Your task to perform on an android device: add a contact Image 0: 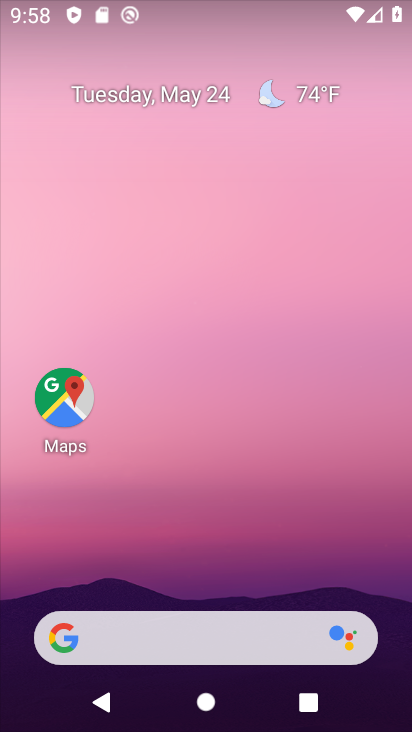
Step 0: drag from (218, 572) to (169, 62)
Your task to perform on an android device: add a contact Image 1: 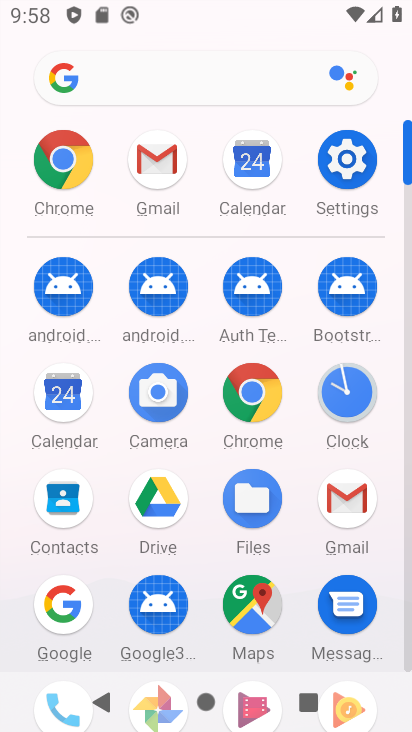
Step 1: drag from (30, 636) to (51, 160)
Your task to perform on an android device: add a contact Image 2: 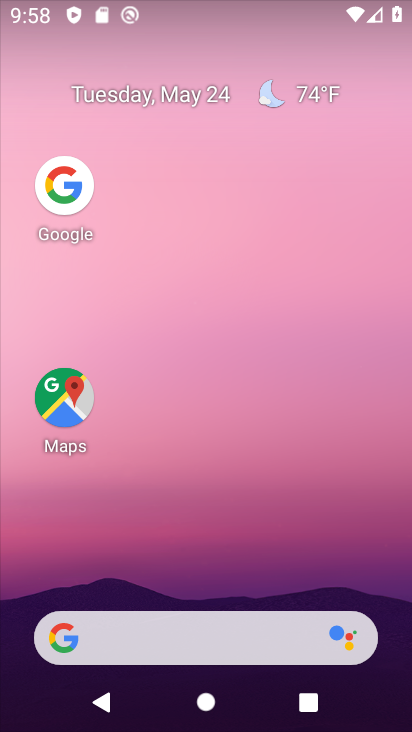
Step 2: drag from (260, 606) to (254, 11)
Your task to perform on an android device: add a contact Image 3: 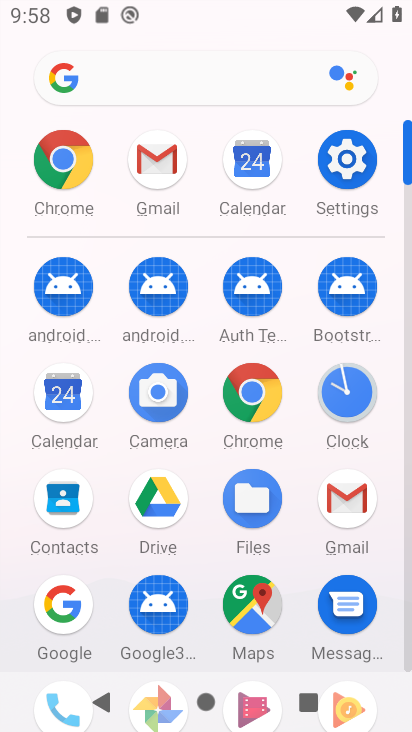
Step 3: drag from (118, 565) to (93, 155)
Your task to perform on an android device: add a contact Image 4: 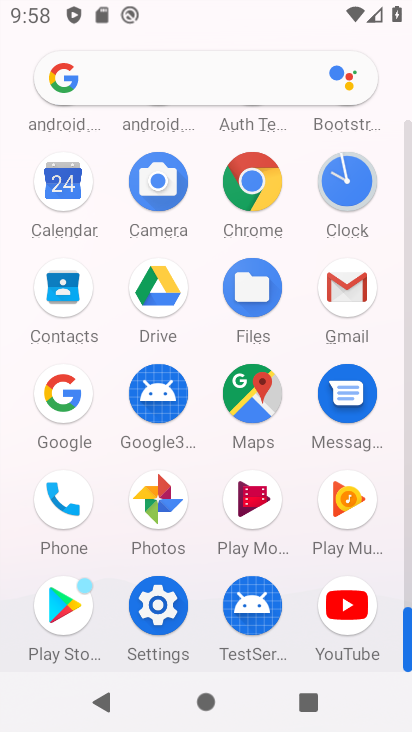
Step 4: click (59, 495)
Your task to perform on an android device: add a contact Image 5: 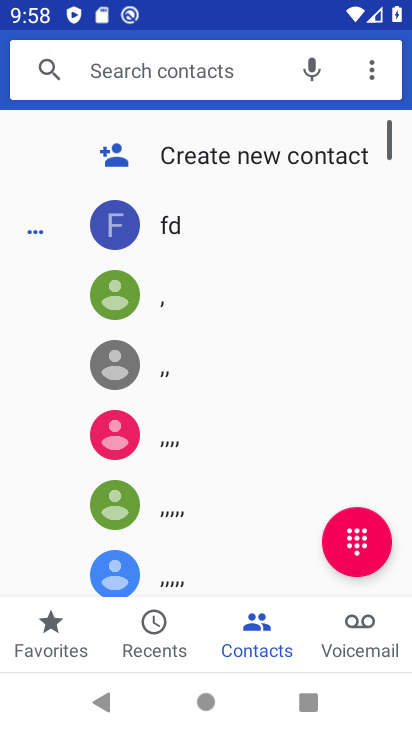
Step 5: click (220, 139)
Your task to perform on an android device: add a contact Image 6: 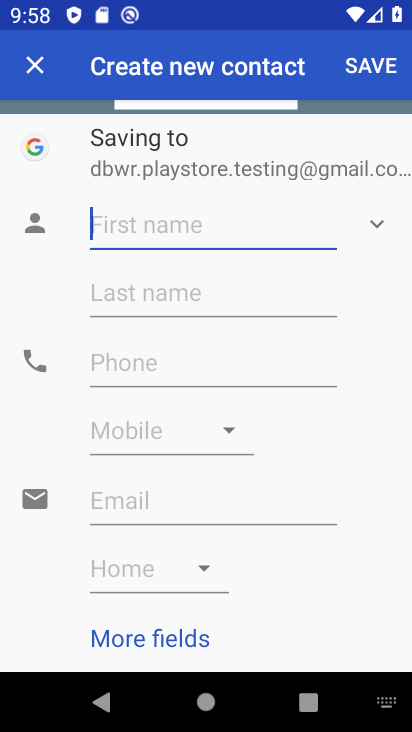
Step 6: type "ji"
Your task to perform on an android device: add a contact Image 7: 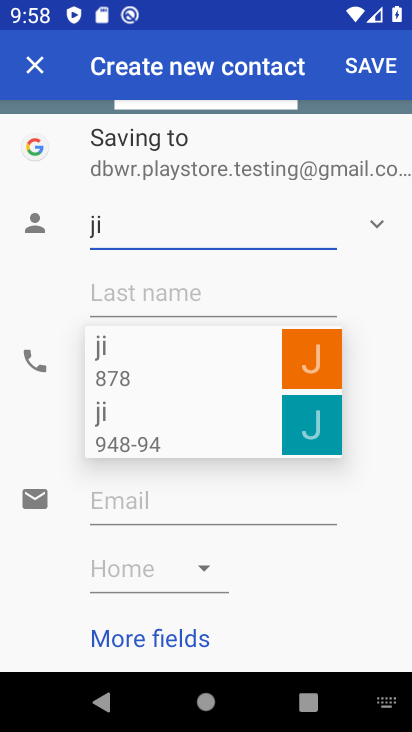
Step 7: click (163, 375)
Your task to perform on an android device: add a contact Image 8: 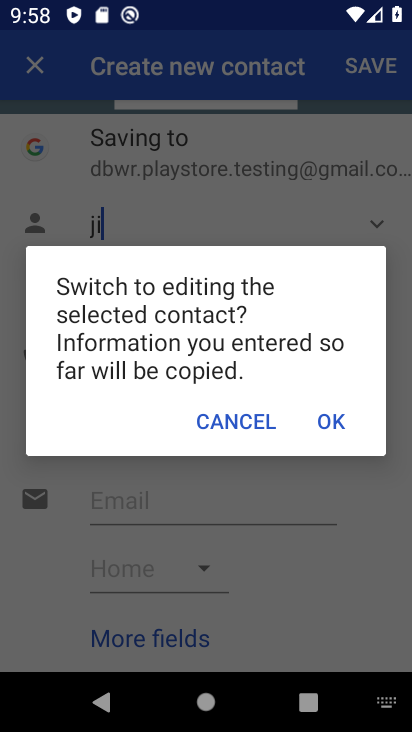
Step 8: click (332, 420)
Your task to perform on an android device: add a contact Image 9: 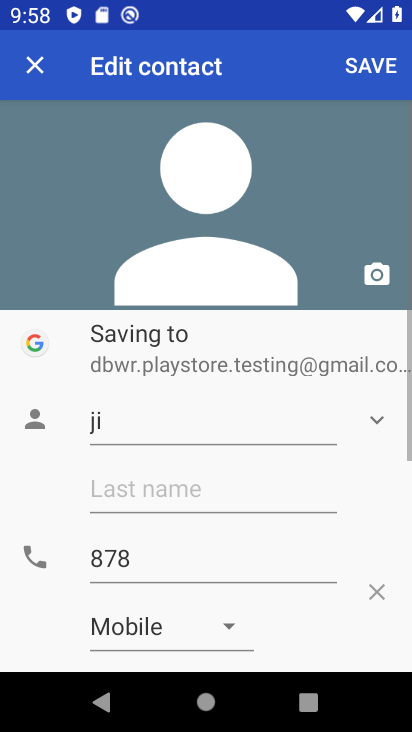
Step 9: click (380, 59)
Your task to perform on an android device: add a contact Image 10: 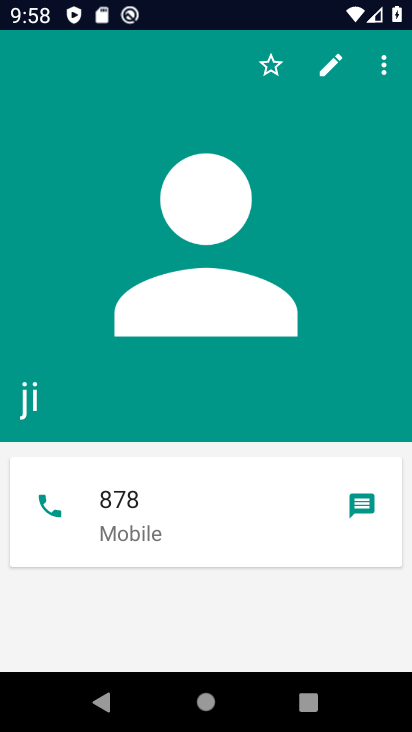
Step 10: task complete